Your task to perform on an android device: Open Google Chrome and open the bookmarks view Image 0: 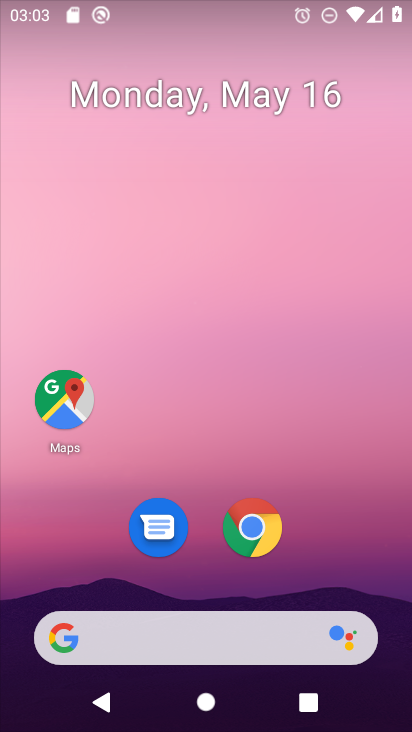
Step 0: drag from (343, 583) to (313, 275)
Your task to perform on an android device: Open Google Chrome and open the bookmarks view Image 1: 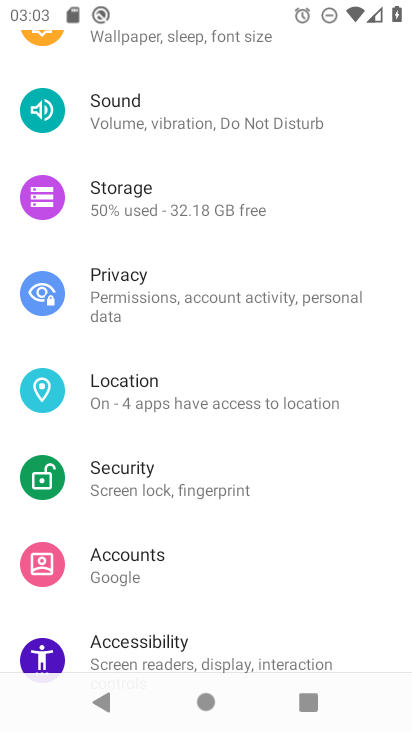
Step 1: press home button
Your task to perform on an android device: Open Google Chrome and open the bookmarks view Image 2: 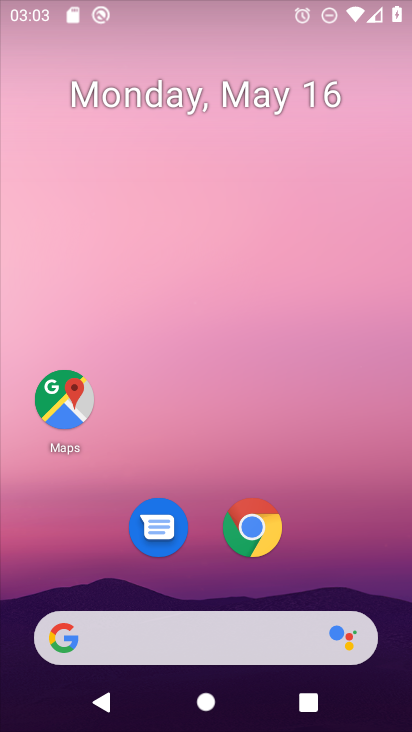
Step 2: click (246, 548)
Your task to perform on an android device: Open Google Chrome and open the bookmarks view Image 3: 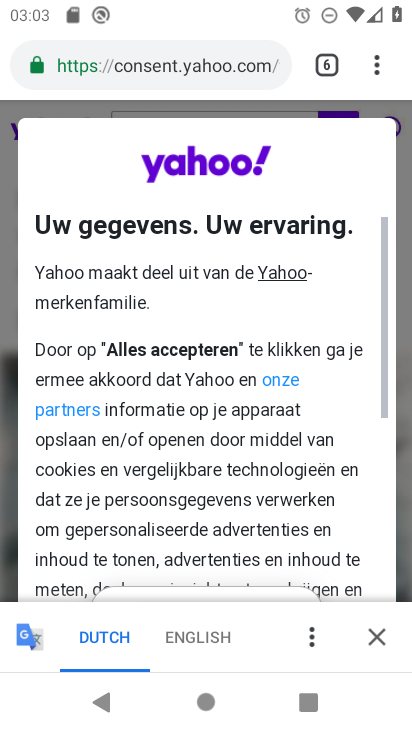
Step 3: click (375, 60)
Your task to perform on an android device: Open Google Chrome and open the bookmarks view Image 4: 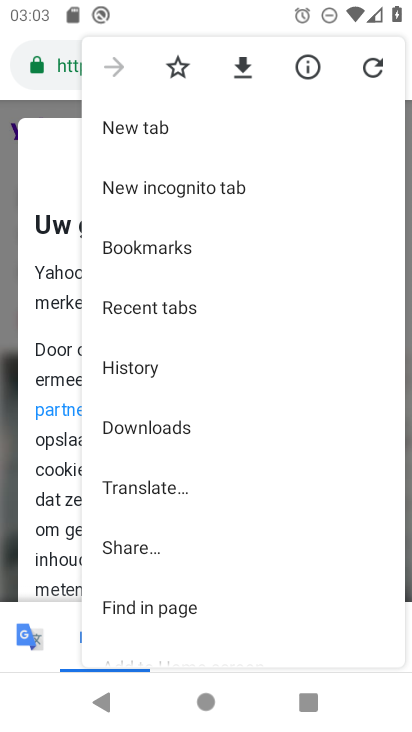
Step 4: drag from (189, 555) to (236, 241)
Your task to perform on an android device: Open Google Chrome and open the bookmarks view Image 5: 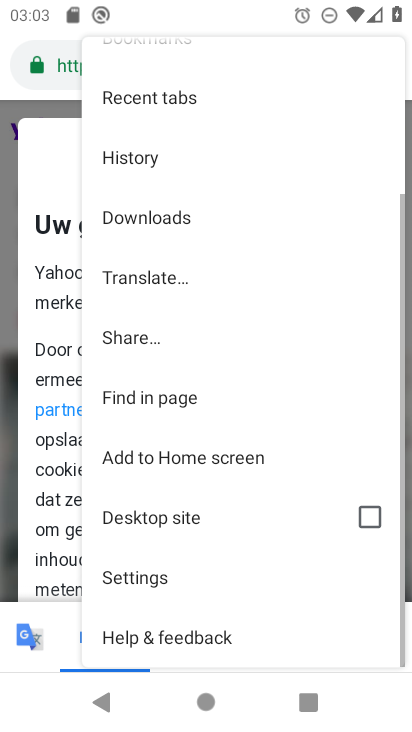
Step 5: click (194, 561)
Your task to perform on an android device: Open Google Chrome and open the bookmarks view Image 6: 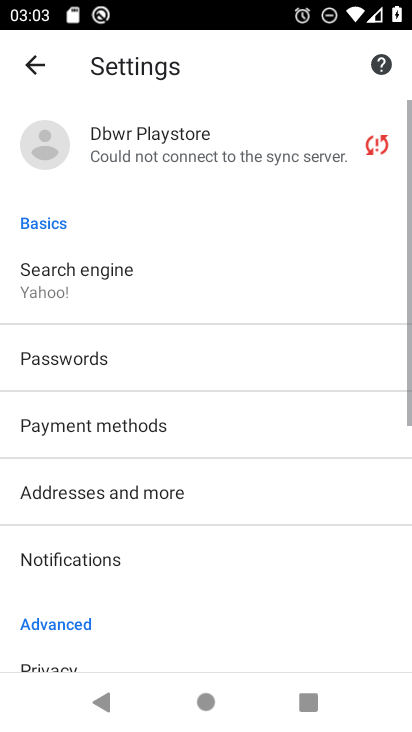
Step 6: drag from (178, 601) to (192, 225)
Your task to perform on an android device: Open Google Chrome and open the bookmarks view Image 7: 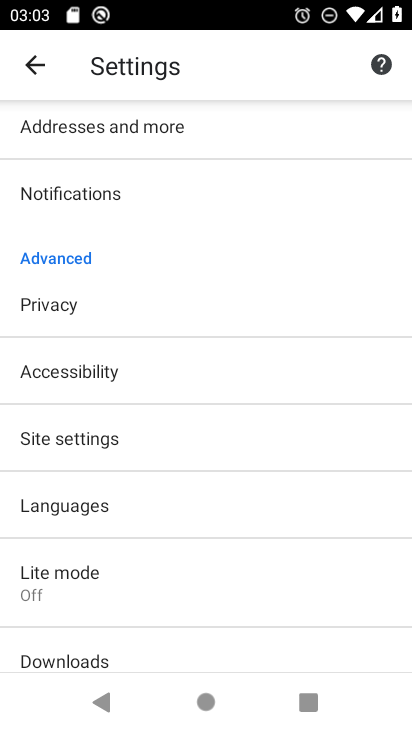
Step 7: click (38, 84)
Your task to perform on an android device: Open Google Chrome and open the bookmarks view Image 8: 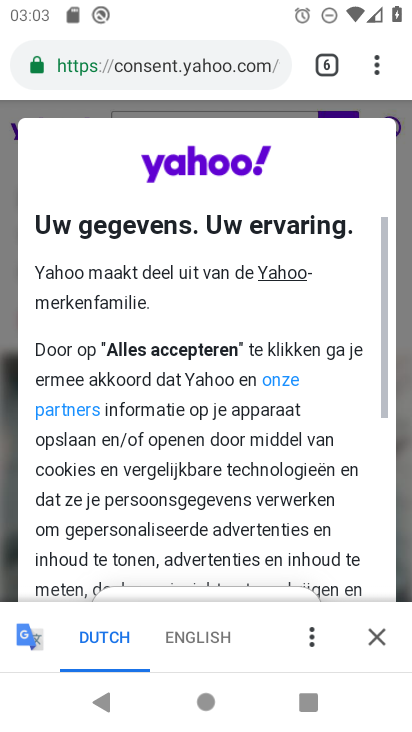
Step 8: click (382, 74)
Your task to perform on an android device: Open Google Chrome and open the bookmarks view Image 9: 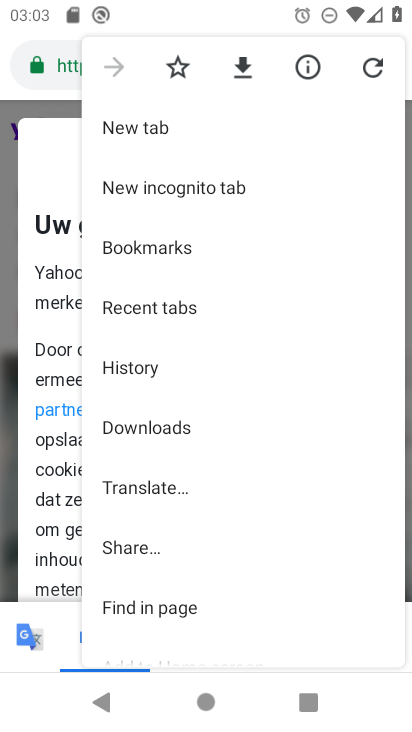
Step 9: click (230, 241)
Your task to perform on an android device: Open Google Chrome and open the bookmarks view Image 10: 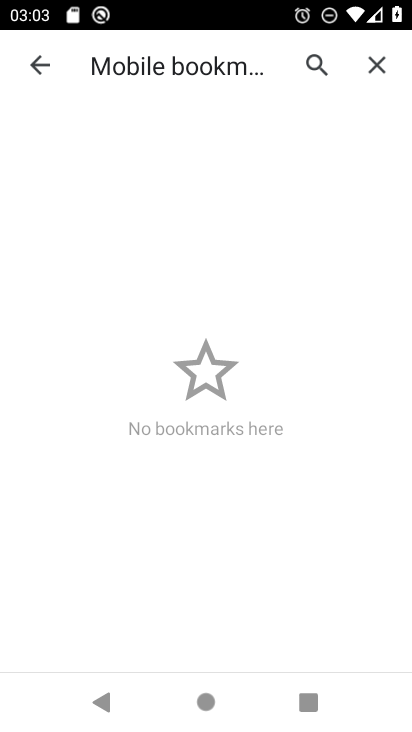
Step 10: task complete